Your task to perform on an android device: Go to internet settings Image 0: 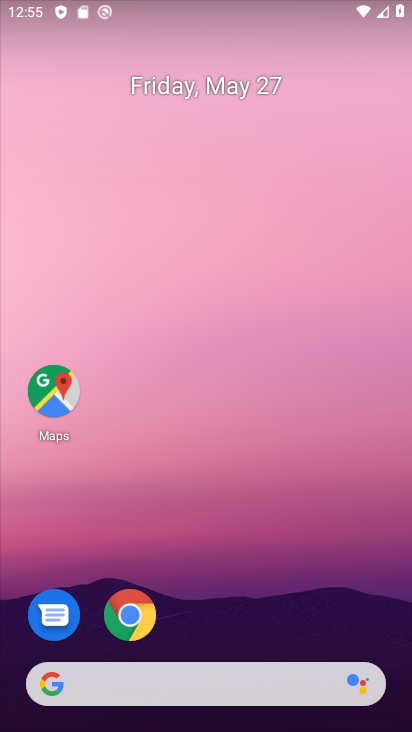
Step 0: drag from (289, 637) to (305, 73)
Your task to perform on an android device: Go to internet settings Image 1: 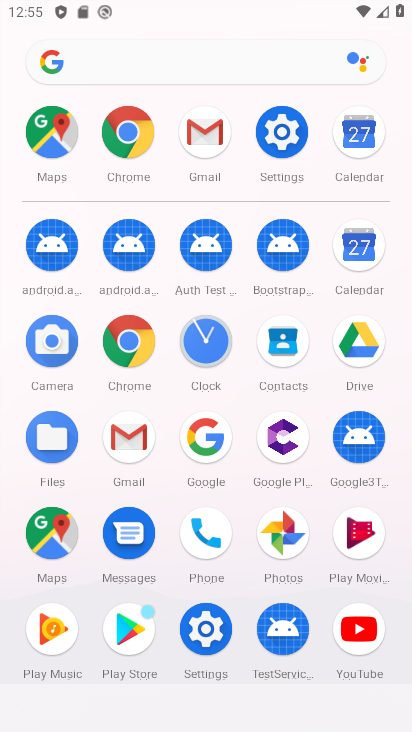
Step 1: click (287, 130)
Your task to perform on an android device: Go to internet settings Image 2: 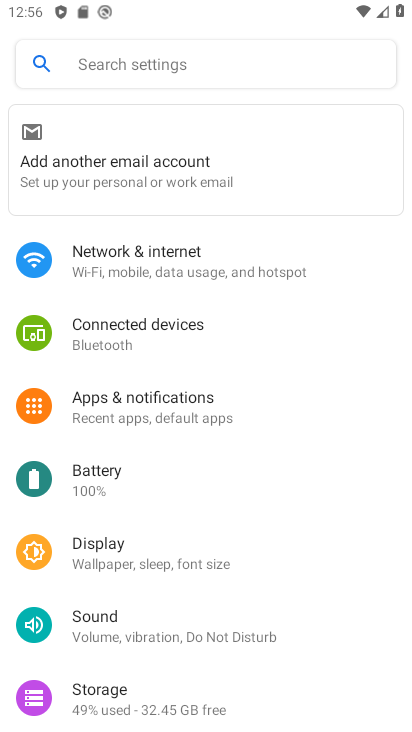
Step 2: click (165, 270)
Your task to perform on an android device: Go to internet settings Image 3: 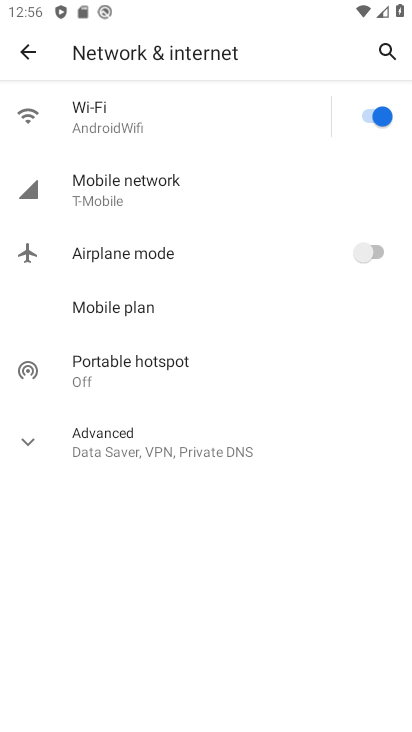
Step 3: task complete